Your task to perform on an android device: Open the calendar and show me this week's events? Image 0: 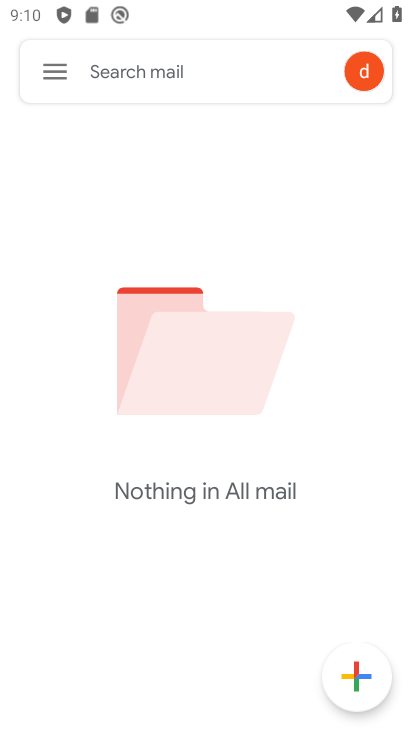
Step 0: press home button
Your task to perform on an android device: Open the calendar and show me this week's events? Image 1: 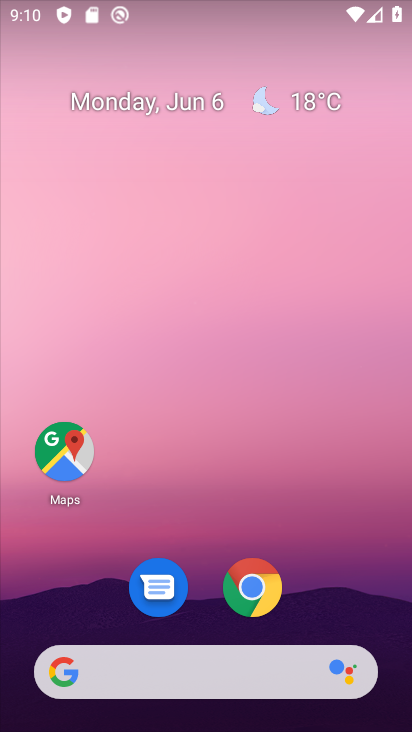
Step 1: drag from (346, 565) to (309, 110)
Your task to perform on an android device: Open the calendar and show me this week's events? Image 2: 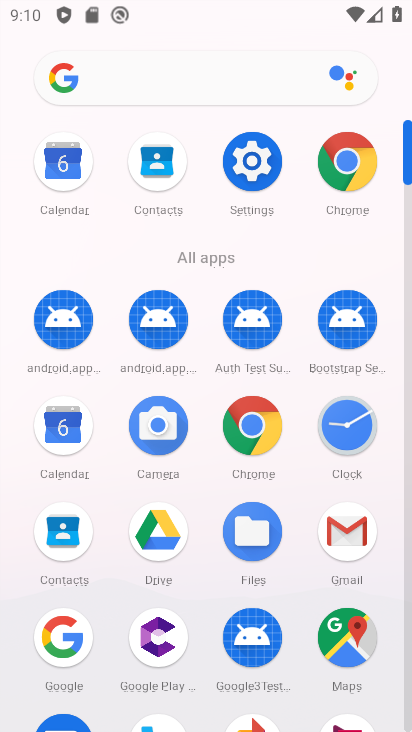
Step 2: click (59, 429)
Your task to perform on an android device: Open the calendar and show me this week's events? Image 3: 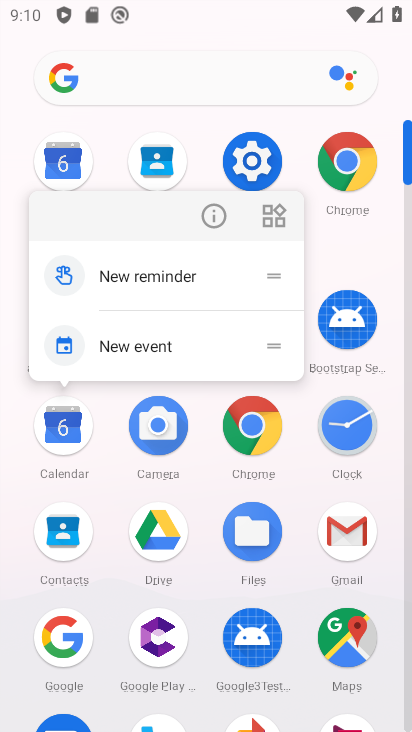
Step 3: click (65, 168)
Your task to perform on an android device: Open the calendar and show me this week's events? Image 4: 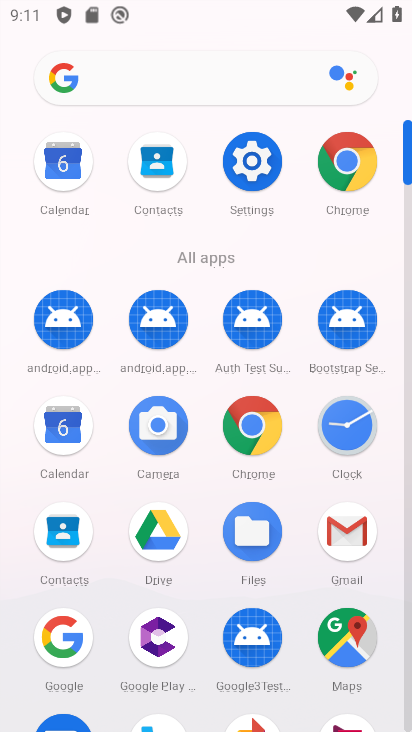
Step 4: click (68, 168)
Your task to perform on an android device: Open the calendar and show me this week's events? Image 5: 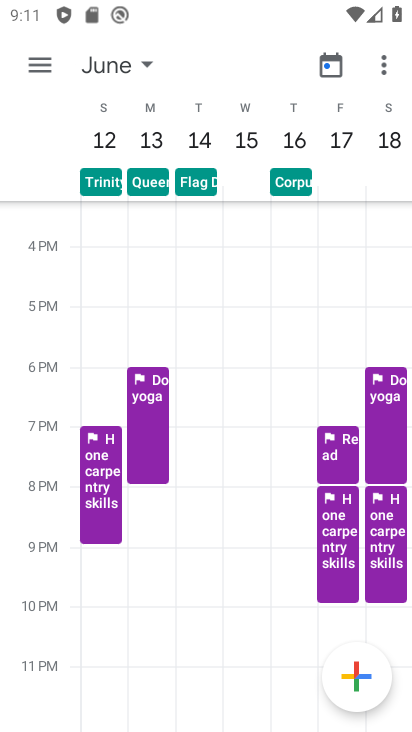
Step 5: task complete